Your task to perform on an android device: turn on wifi Image 0: 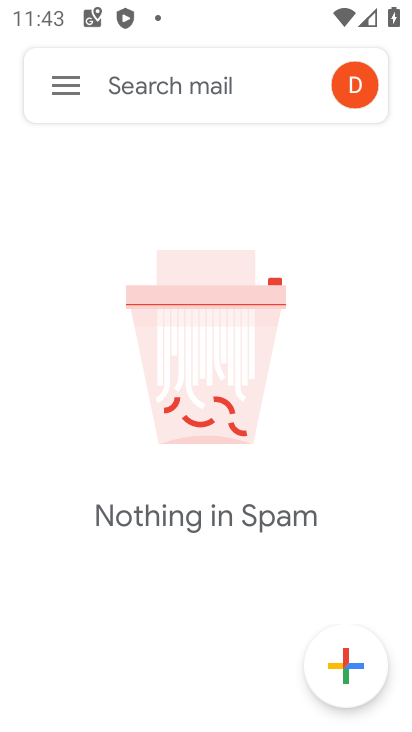
Step 0: press home button
Your task to perform on an android device: turn on wifi Image 1: 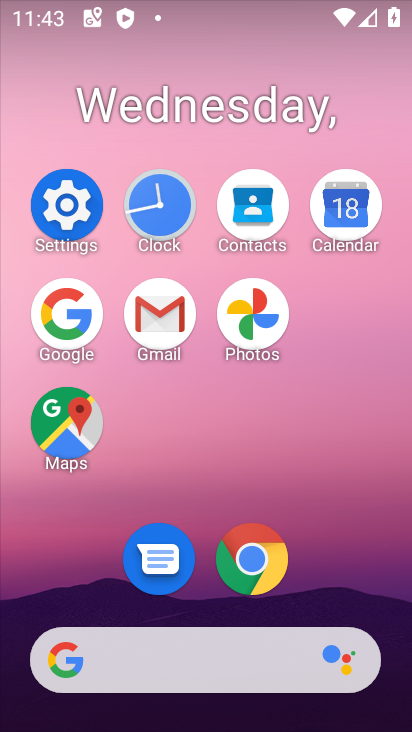
Step 1: click (43, 225)
Your task to perform on an android device: turn on wifi Image 2: 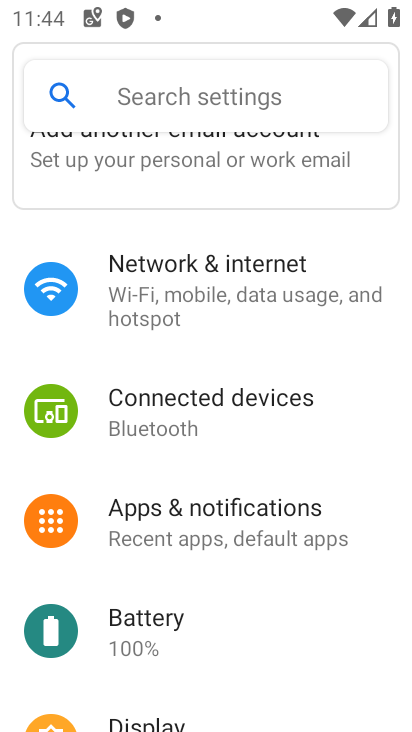
Step 2: click (223, 298)
Your task to perform on an android device: turn on wifi Image 3: 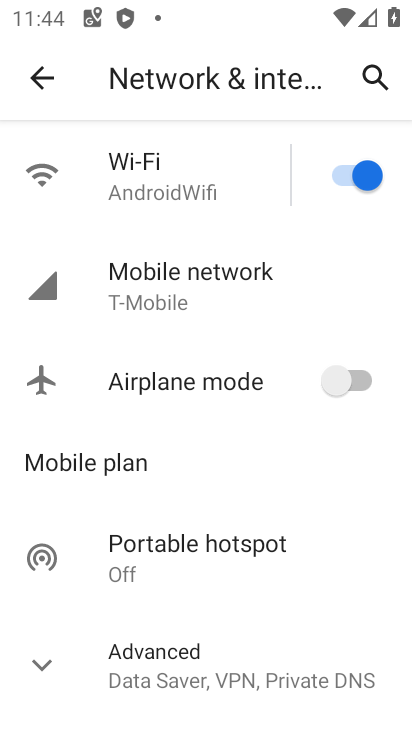
Step 3: click (227, 197)
Your task to perform on an android device: turn on wifi Image 4: 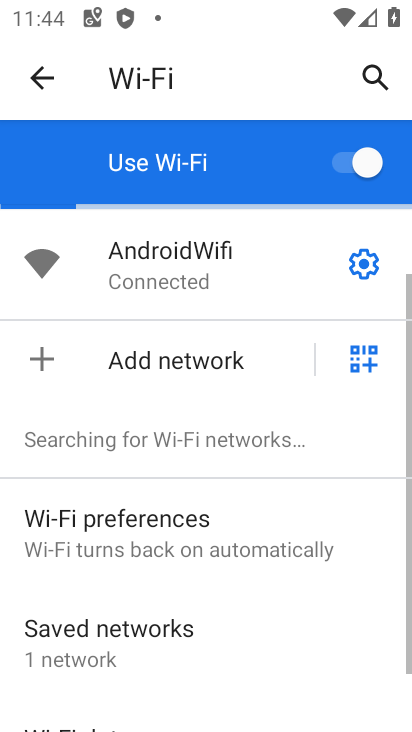
Step 4: task complete